Your task to perform on an android device: Check the weather Image 0: 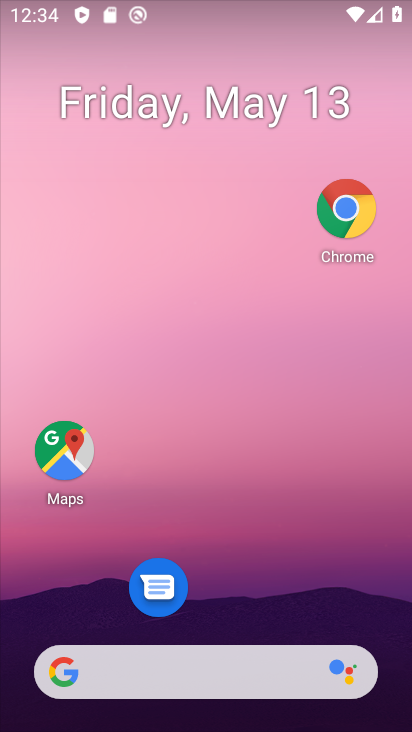
Step 0: click (138, 665)
Your task to perform on an android device: Check the weather Image 1: 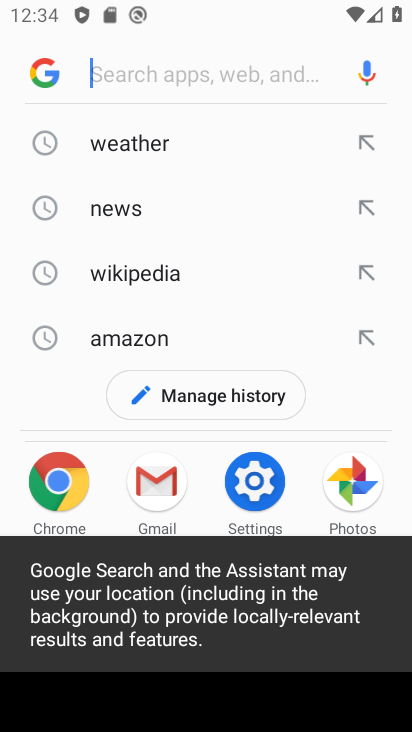
Step 1: click (124, 147)
Your task to perform on an android device: Check the weather Image 2: 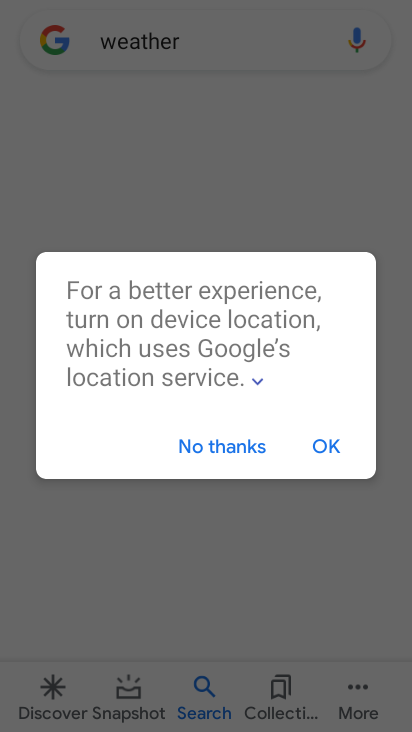
Step 2: task complete